Your task to perform on an android device: create a new album in the google photos Image 0: 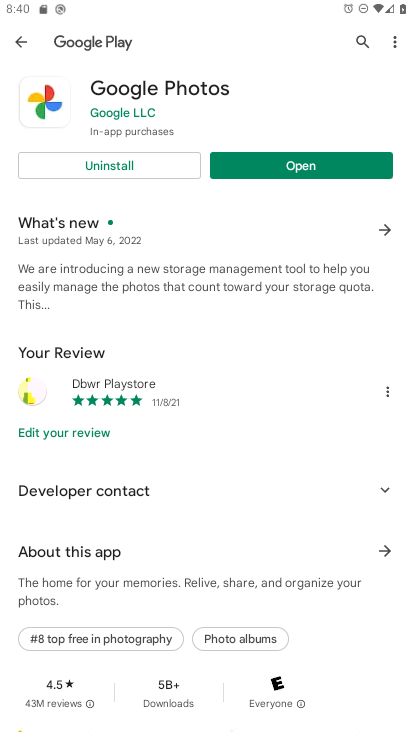
Step 0: click (247, 170)
Your task to perform on an android device: create a new album in the google photos Image 1: 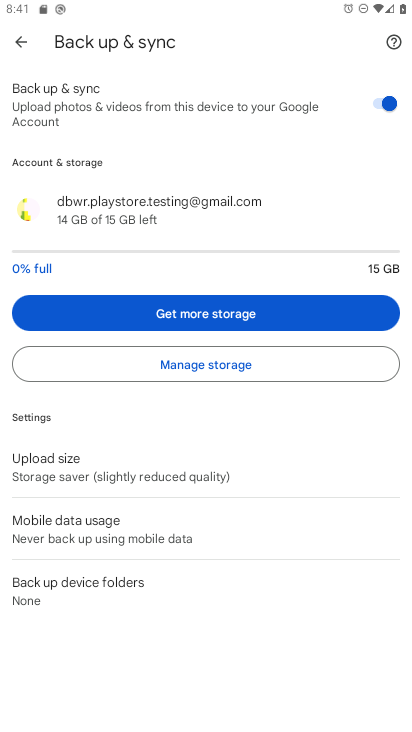
Step 1: click (24, 44)
Your task to perform on an android device: create a new album in the google photos Image 2: 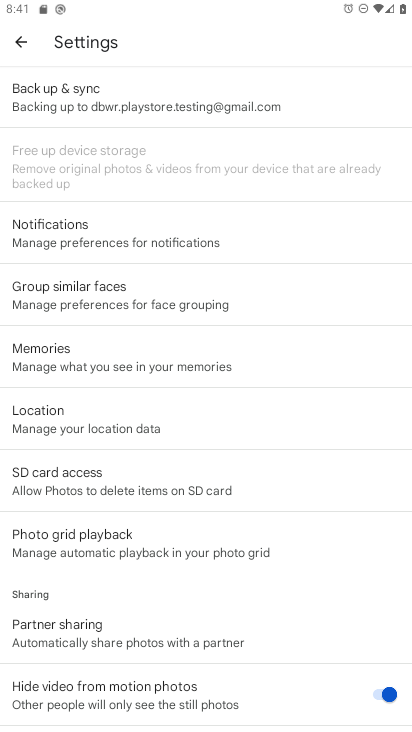
Step 2: click (20, 45)
Your task to perform on an android device: create a new album in the google photos Image 3: 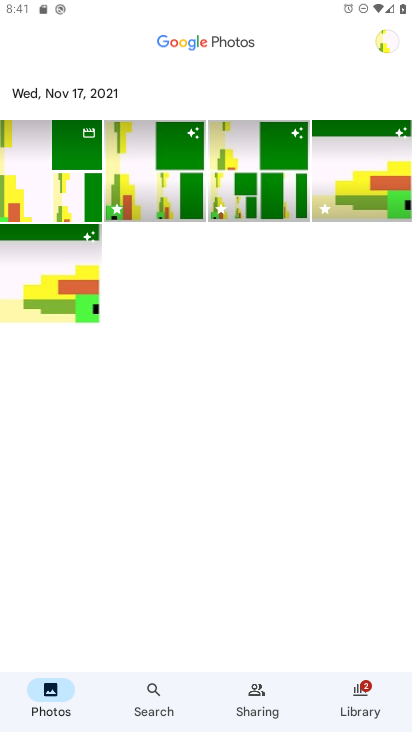
Step 3: click (345, 699)
Your task to perform on an android device: create a new album in the google photos Image 4: 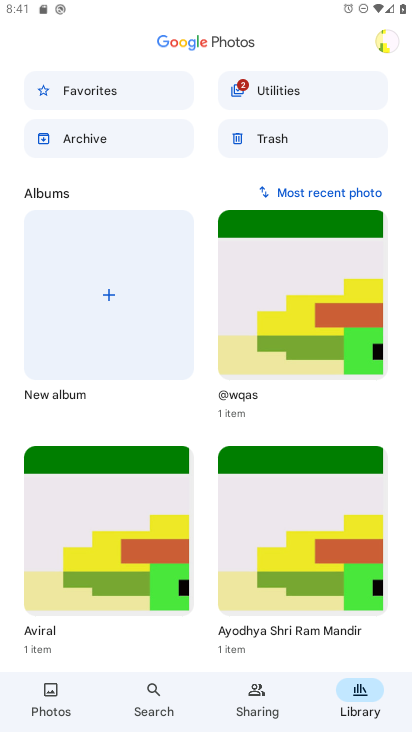
Step 4: click (100, 286)
Your task to perform on an android device: create a new album in the google photos Image 5: 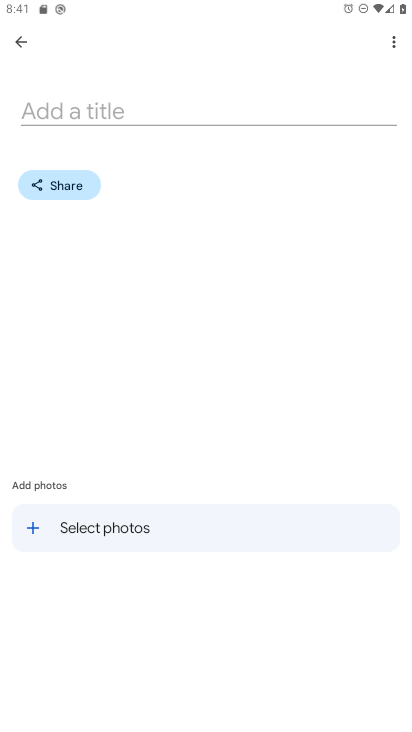
Step 5: click (127, 100)
Your task to perform on an android device: create a new album in the google photos Image 6: 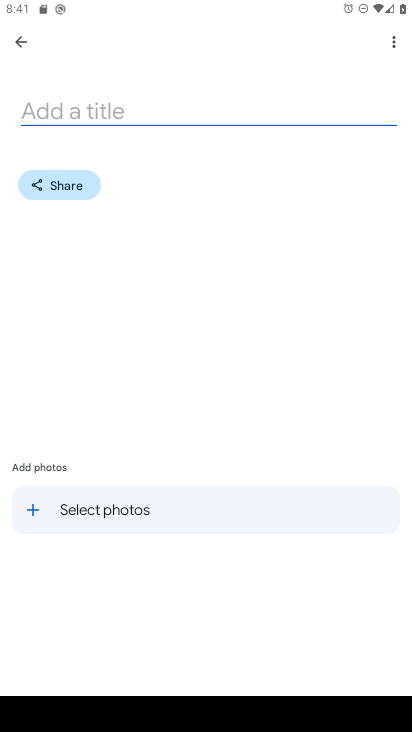
Step 6: type "fegfdctjhg"
Your task to perform on an android device: create a new album in the google photos Image 7: 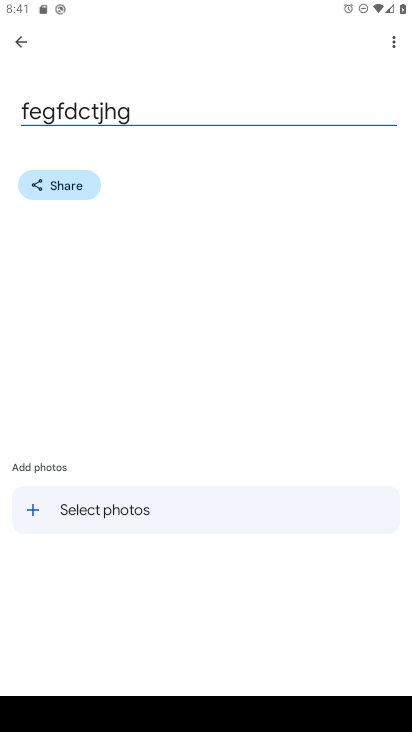
Step 7: click (26, 38)
Your task to perform on an android device: create a new album in the google photos Image 8: 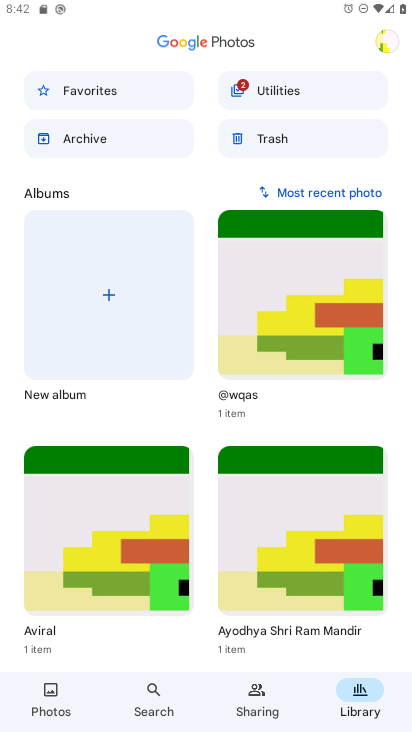
Step 8: task complete